Your task to perform on an android device: turn on javascript in the chrome app Image 0: 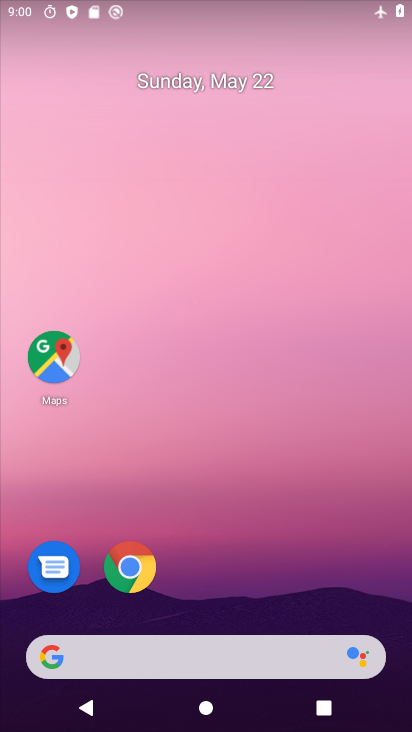
Step 0: click (131, 577)
Your task to perform on an android device: turn on javascript in the chrome app Image 1: 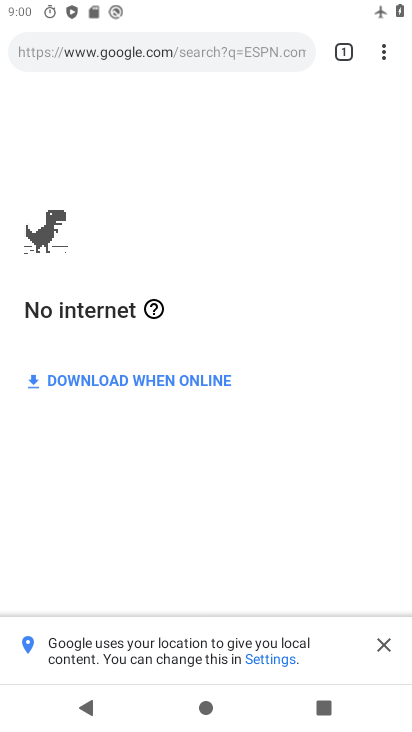
Step 1: click (382, 53)
Your task to perform on an android device: turn on javascript in the chrome app Image 2: 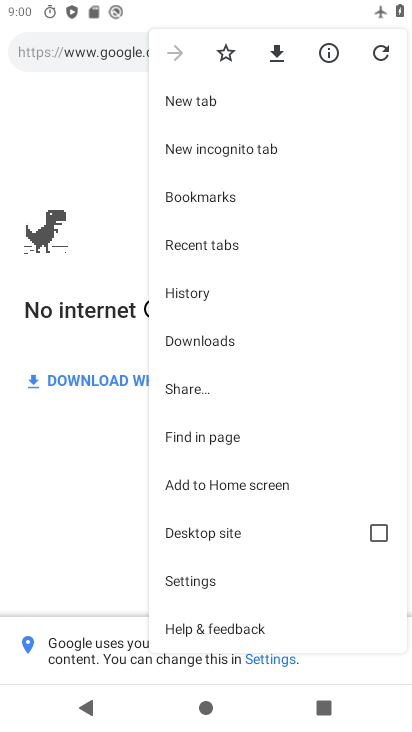
Step 2: click (207, 592)
Your task to perform on an android device: turn on javascript in the chrome app Image 3: 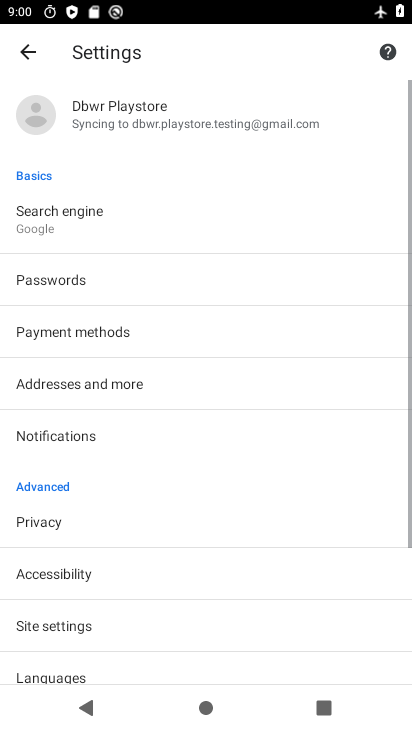
Step 3: drag from (88, 600) to (128, 337)
Your task to perform on an android device: turn on javascript in the chrome app Image 4: 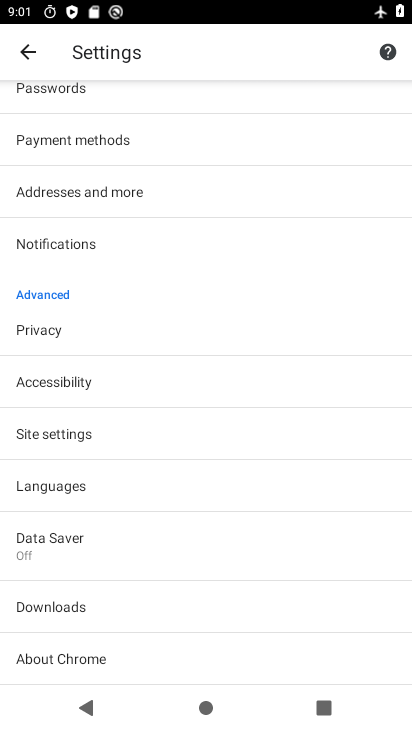
Step 4: click (61, 435)
Your task to perform on an android device: turn on javascript in the chrome app Image 5: 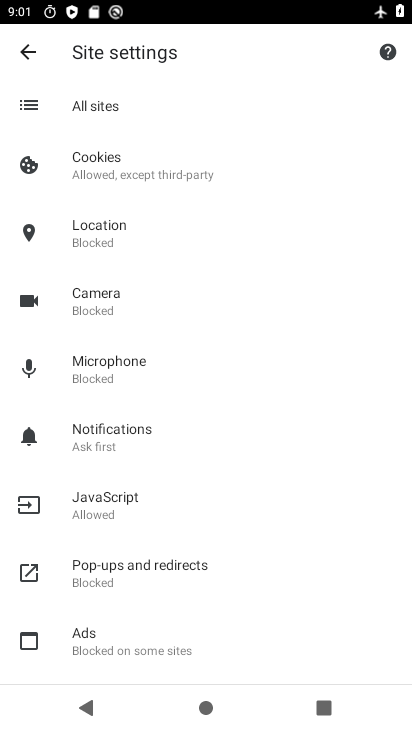
Step 5: click (124, 509)
Your task to perform on an android device: turn on javascript in the chrome app Image 6: 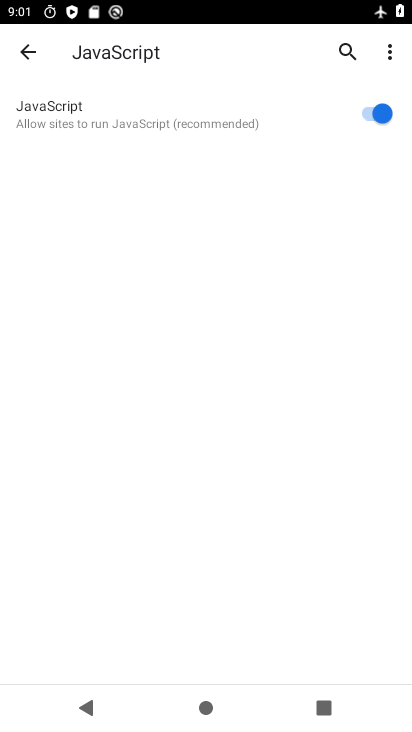
Step 6: task complete